Your task to perform on an android device: Open CNN.com Image 0: 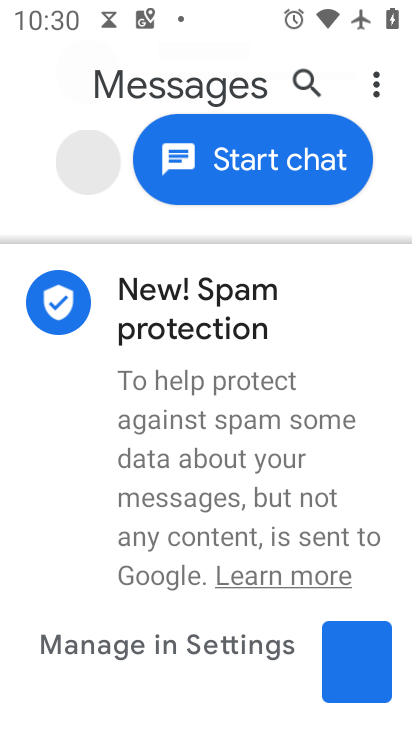
Step 0: press home button
Your task to perform on an android device: Open CNN.com Image 1: 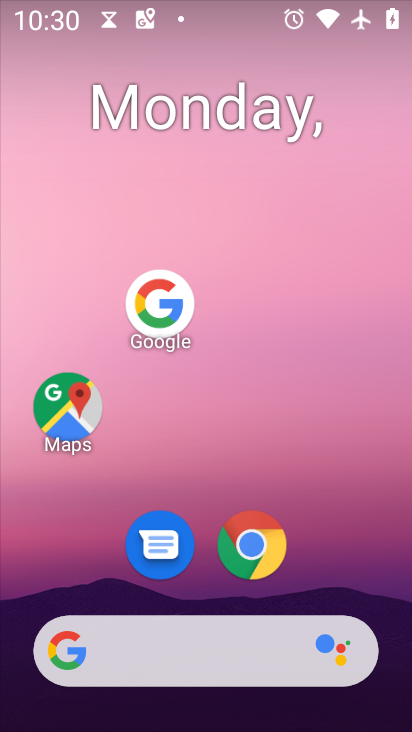
Step 1: click (245, 545)
Your task to perform on an android device: Open CNN.com Image 2: 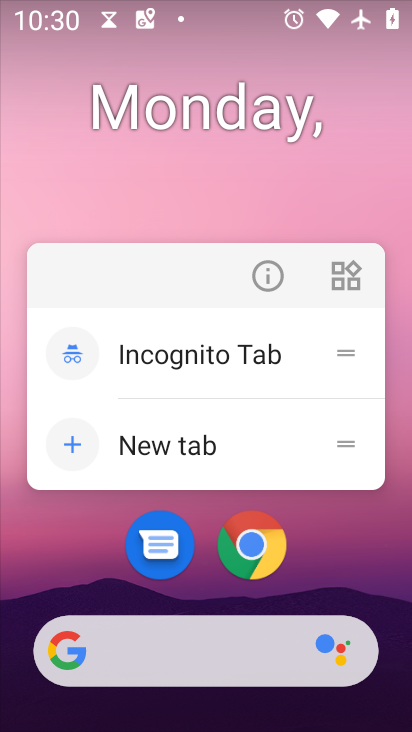
Step 2: click (276, 556)
Your task to perform on an android device: Open CNN.com Image 3: 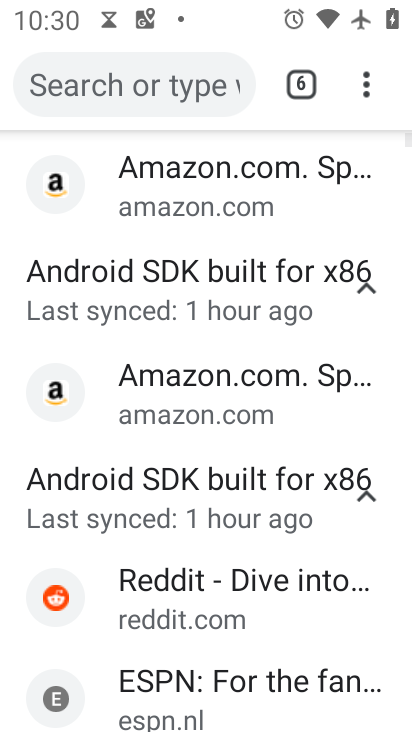
Step 3: drag from (368, 91) to (209, 164)
Your task to perform on an android device: Open CNN.com Image 4: 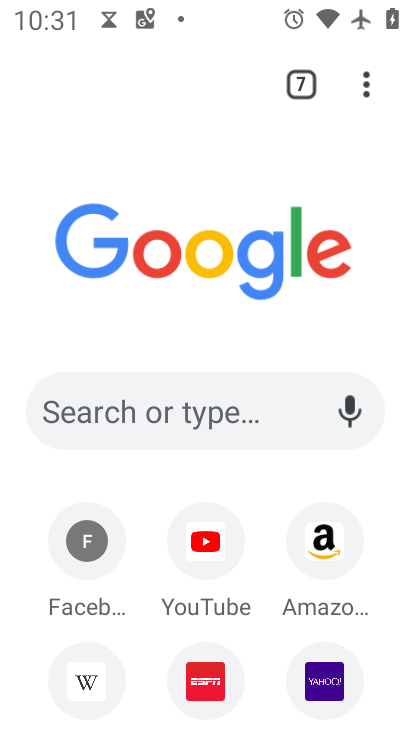
Step 4: drag from (187, 525) to (231, 561)
Your task to perform on an android device: Open CNN.com Image 5: 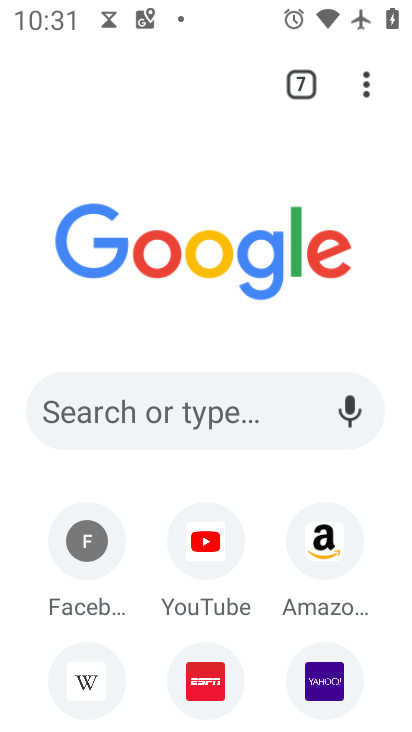
Step 5: click (153, 413)
Your task to perform on an android device: Open CNN.com Image 6: 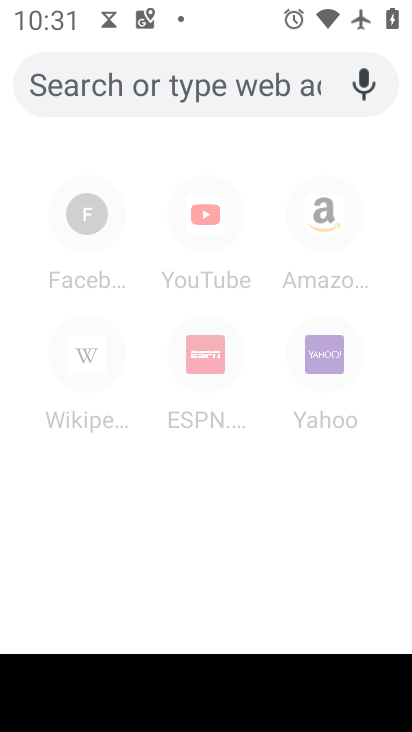
Step 6: type "cnn.com"
Your task to perform on an android device: Open CNN.com Image 7: 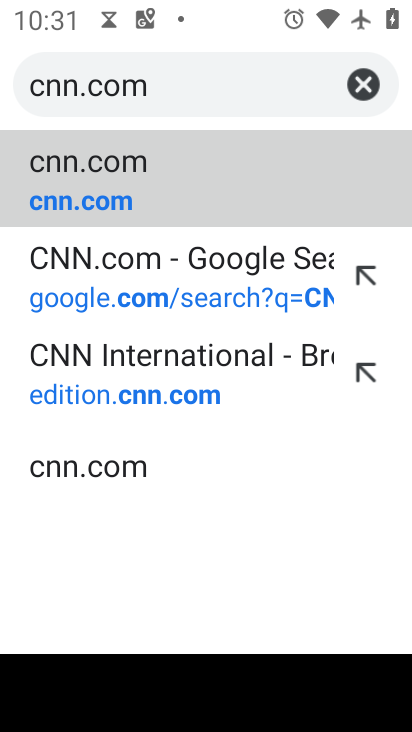
Step 7: click (107, 174)
Your task to perform on an android device: Open CNN.com Image 8: 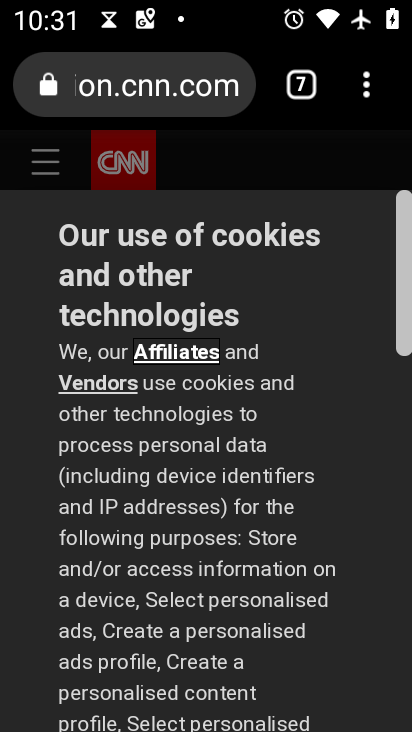
Step 8: drag from (212, 660) to (406, 136)
Your task to perform on an android device: Open CNN.com Image 9: 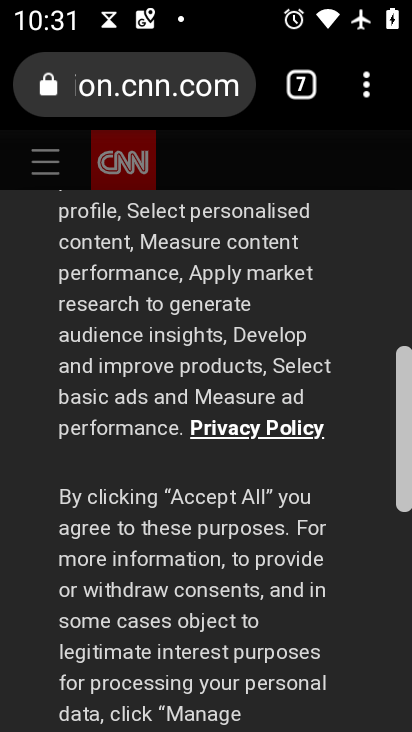
Step 9: drag from (227, 634) to (408, 267)
Your task to perform on an android device: Open CNN.com Image 10: 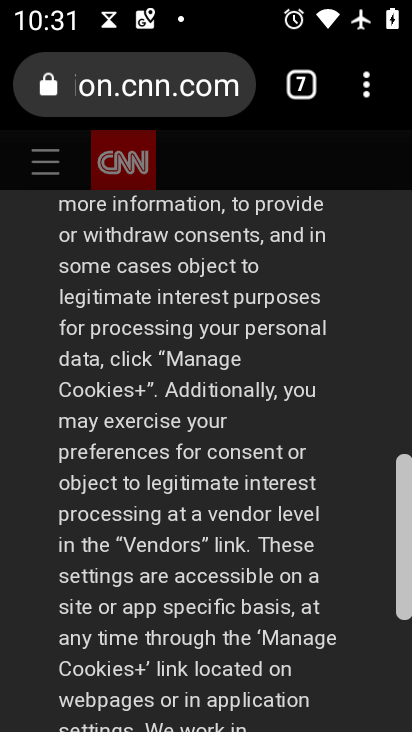
Step 10: drag from (233, 680) to (395, 176)
Your task to perform on an android device: Open CNN.com Image 11: 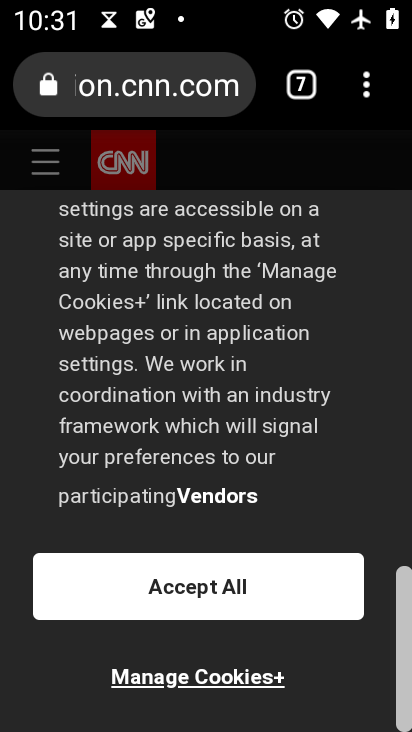
Step 11: click (209, 583)
Your task to perform on an android device: Open CNN.com Image 12: 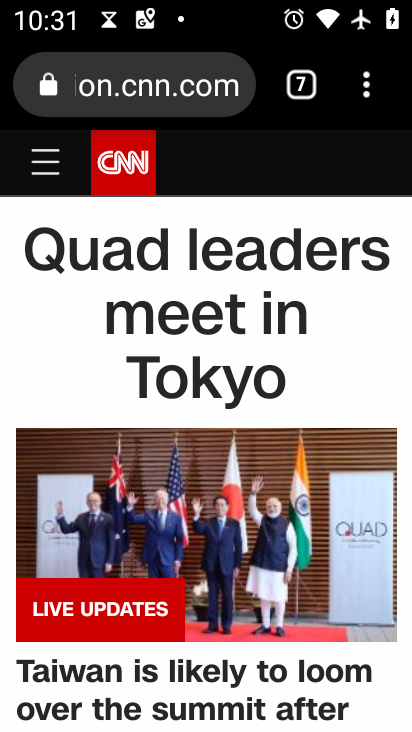
Step 12: task complete